Your task to perform on an android device: uninstall "Venmo" Image 0: 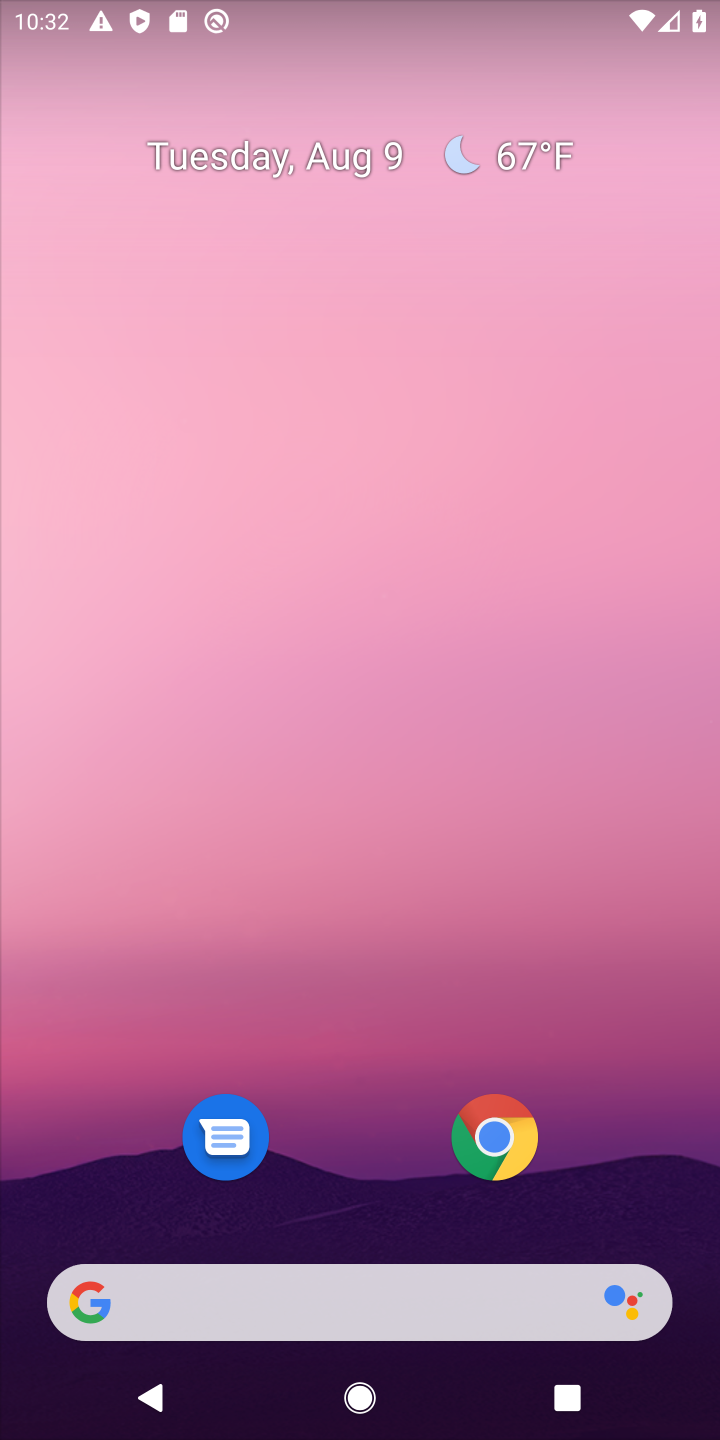
Step 0: drag from (642, 1125) to (462, 225)
Your task to perform on an android device: uninstall "Venmo" Image 1: 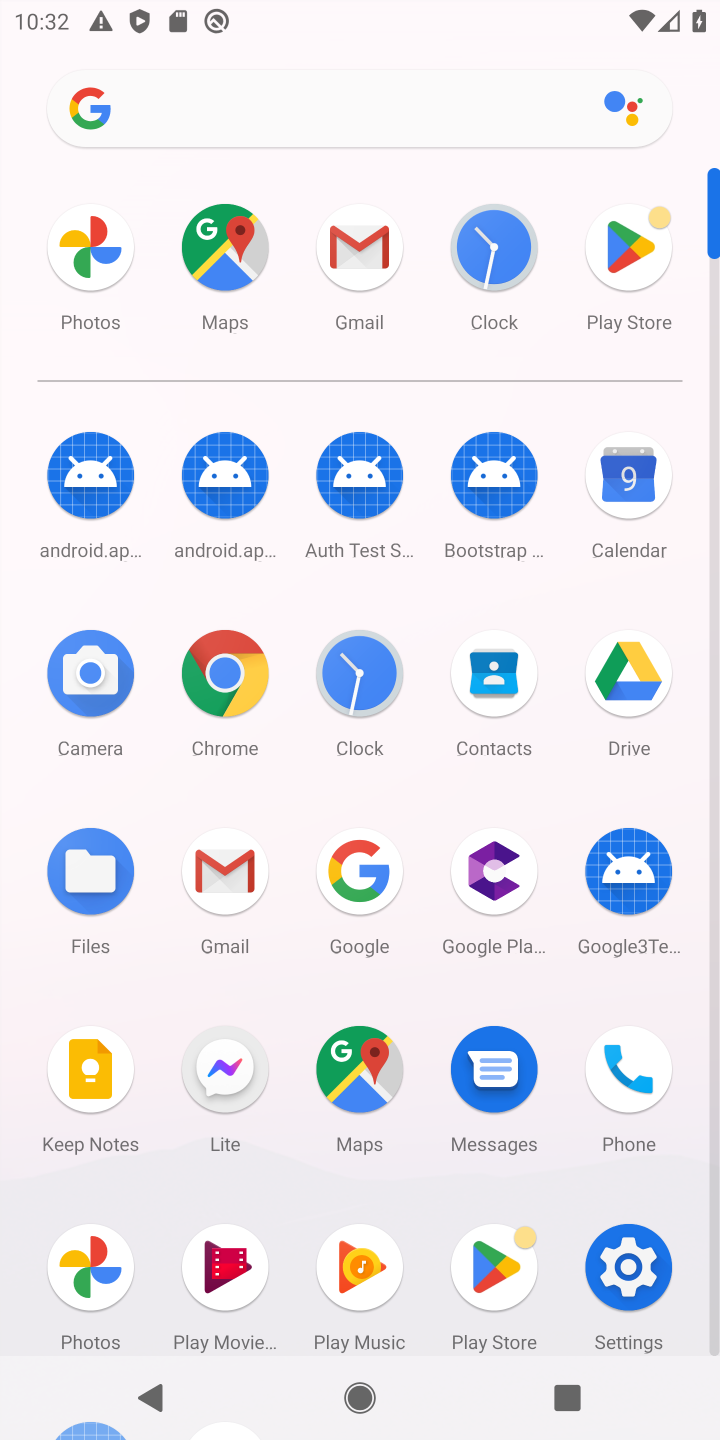
Step 1: click (632, 260)
Your task to perform on an android device: uninstall "Venmo" Image 2: 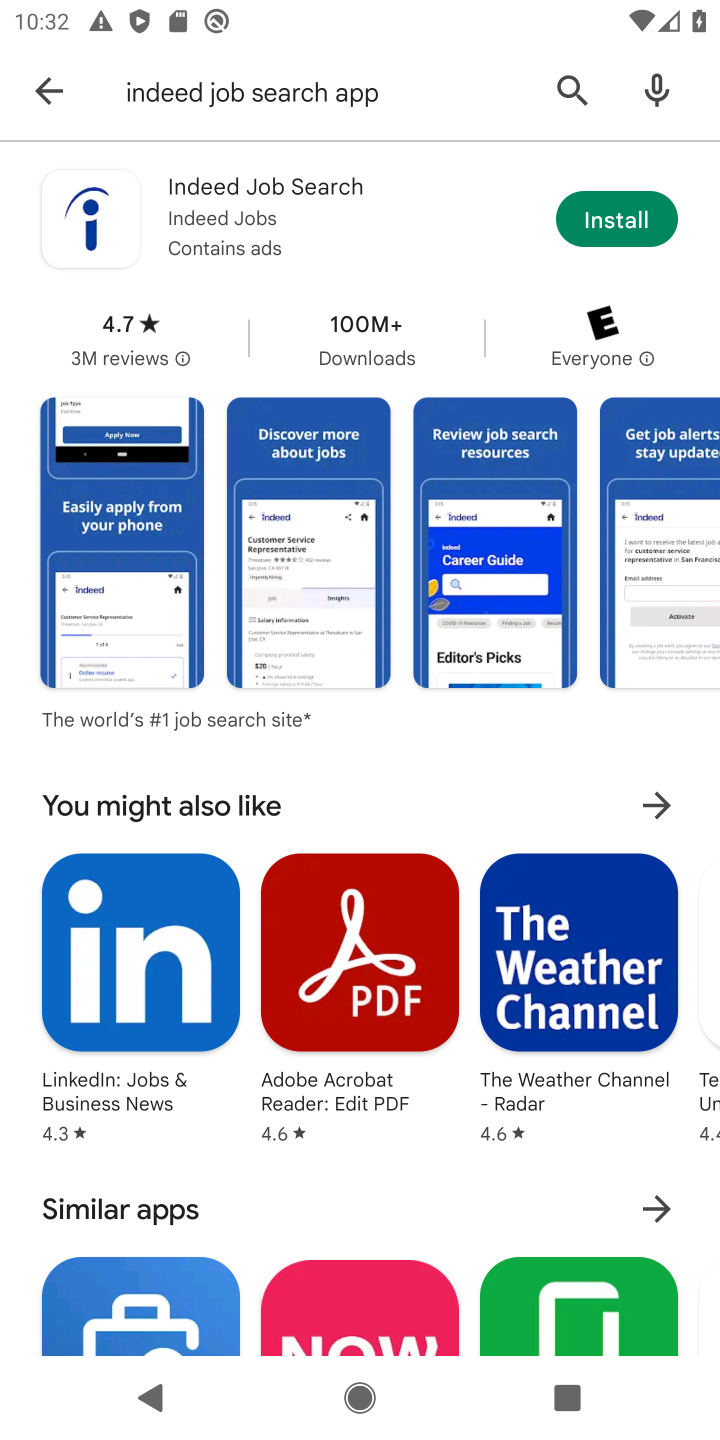
Step 2: press back button
Your task to perform on an android device: uninstall "Venmo" Image 3: 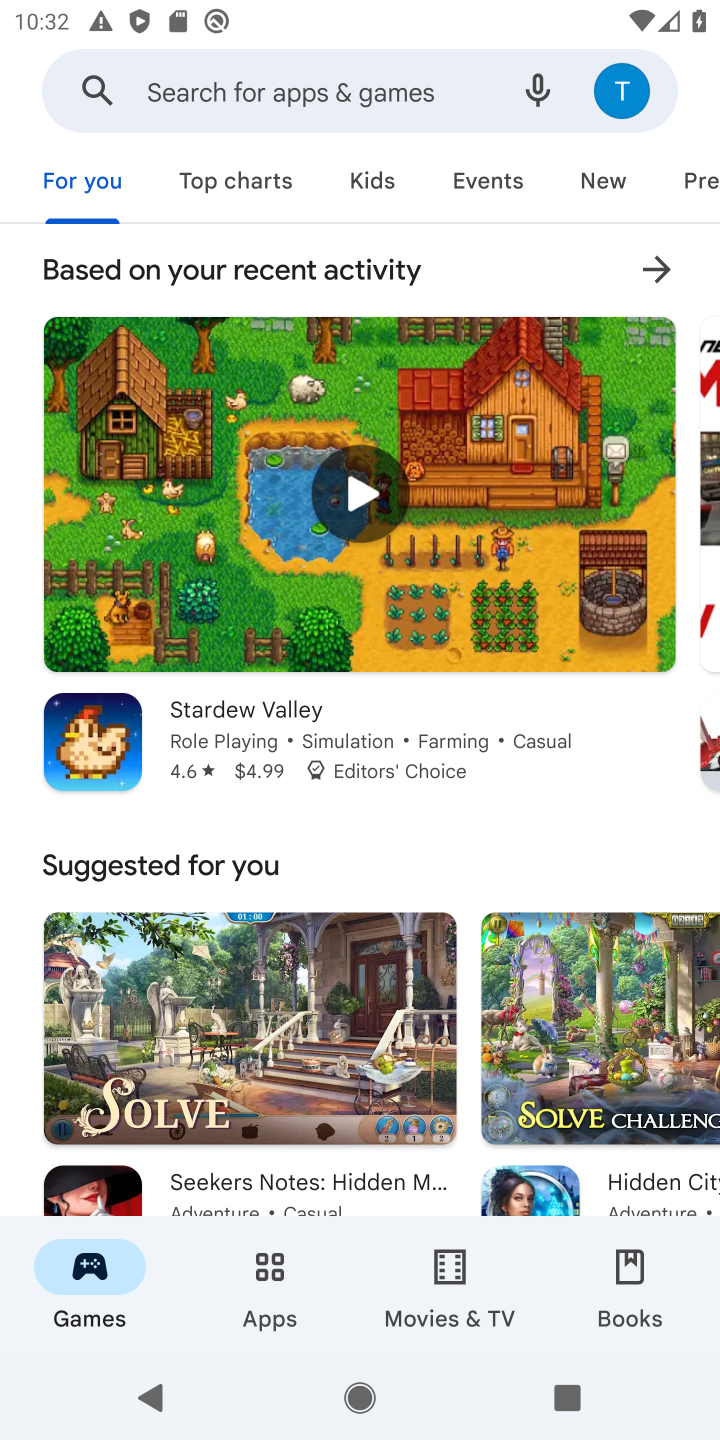
Step 3: click (206, 85)
Your task to perform on an android device: uninstall "Venmo" Image 4: 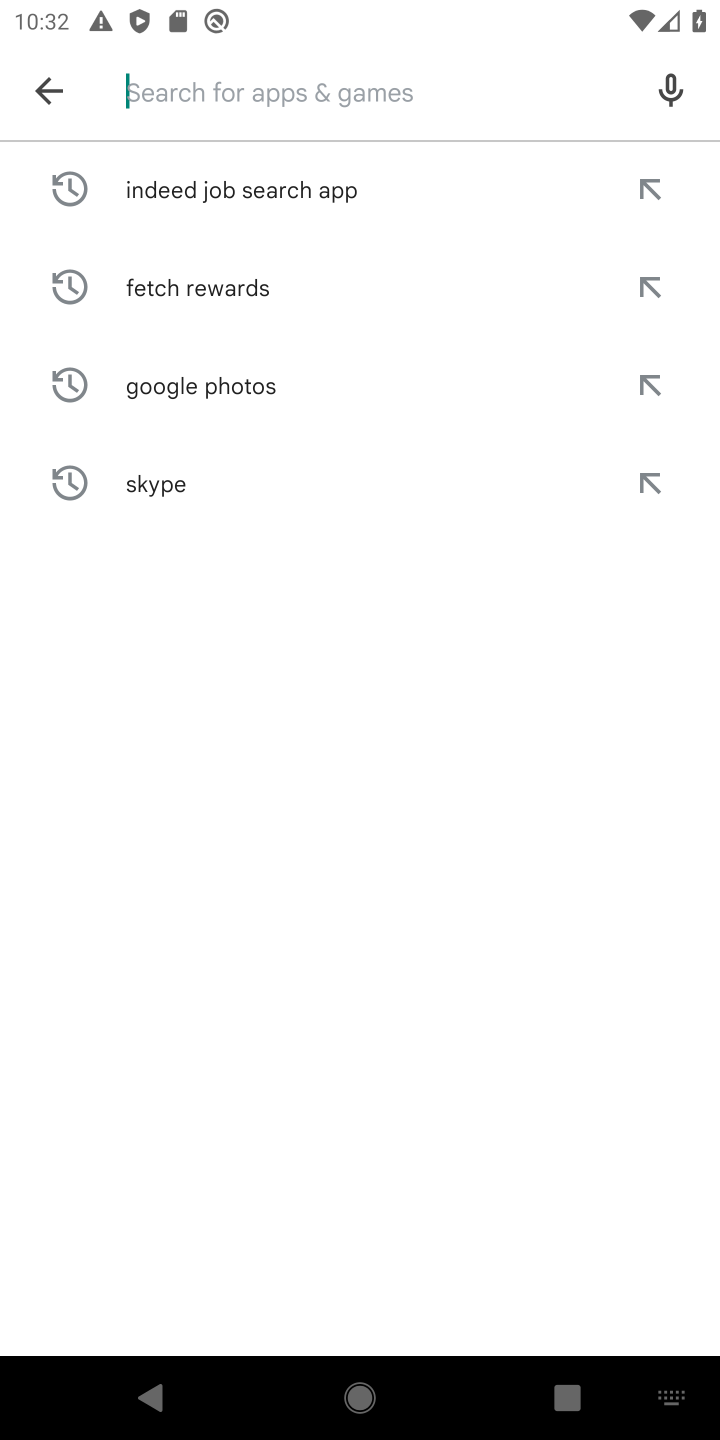
Step 4: type "Venmo"
Your task to perform on an android device: uninstall "Venmo" Image 5: 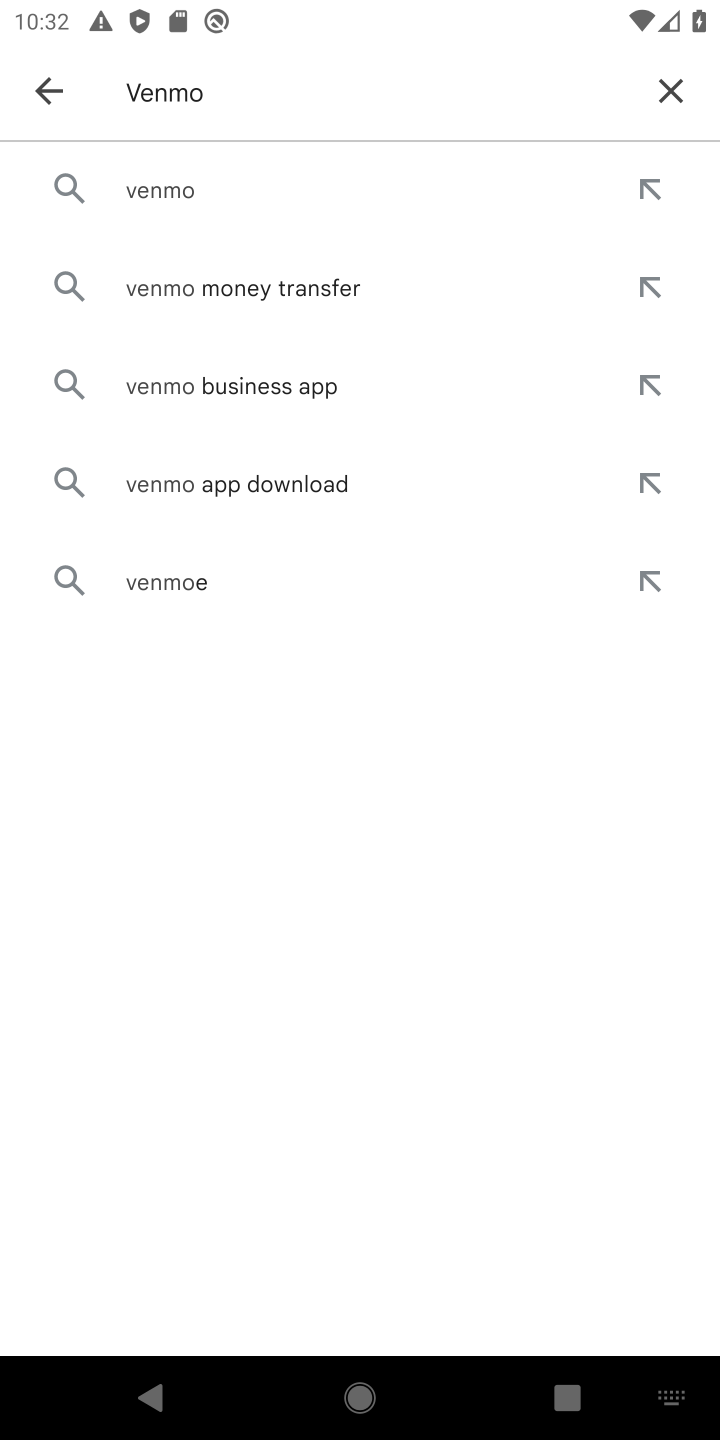
Step 5: click (287, 211)
Your task to perform on an android device: uninstall "Venmo" Image 6: 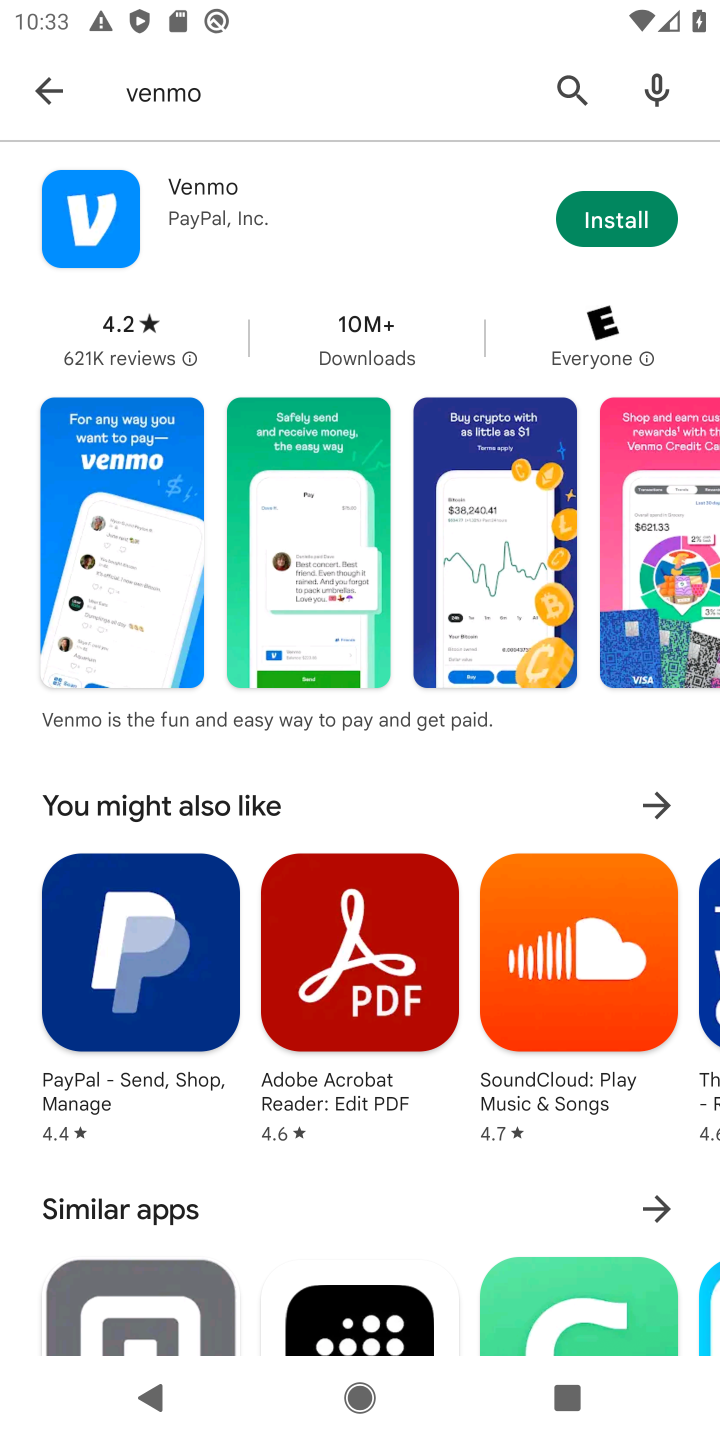
Step 6: task complete